Your task to perform on an android device: toggle pop-ups in chrome Image 0: 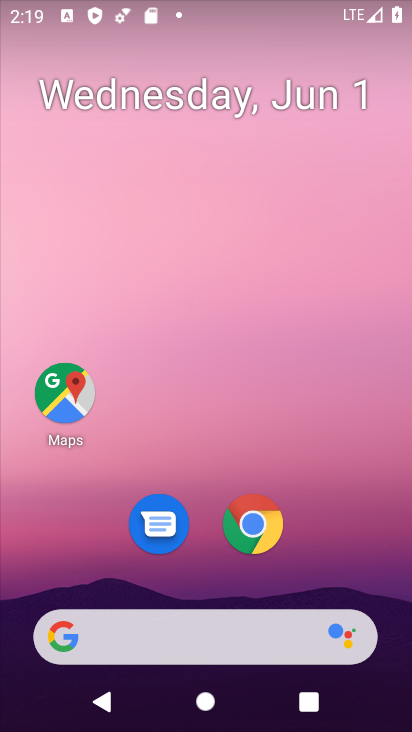
Step 0: click (257, 517)
Your task to perform on an android device: toggle pop-ups in chrome Image 1: 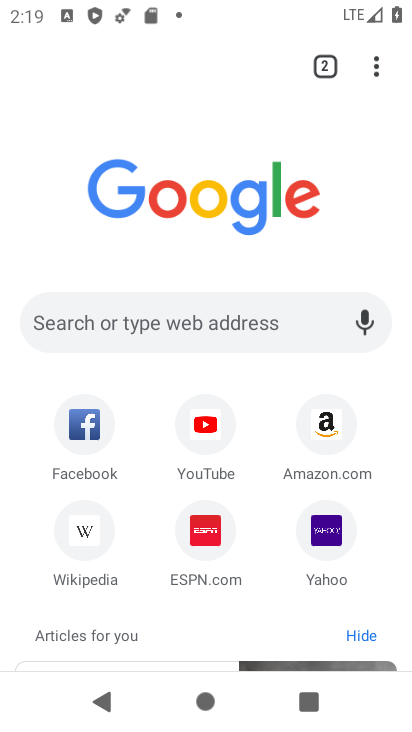
Step 1: click (376, 74)
Your task to perform on an android device: toggle pop-ups in chrome Image 2: 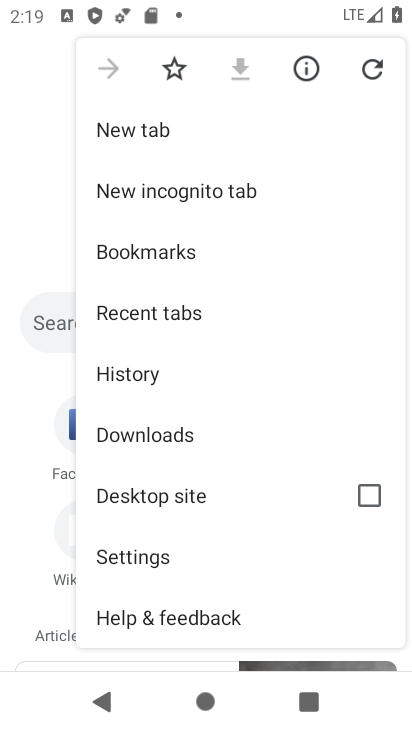
Step 2: click (198, 551)
Your task to perform on an android device: toggle pop-ups in chrome Image 3: 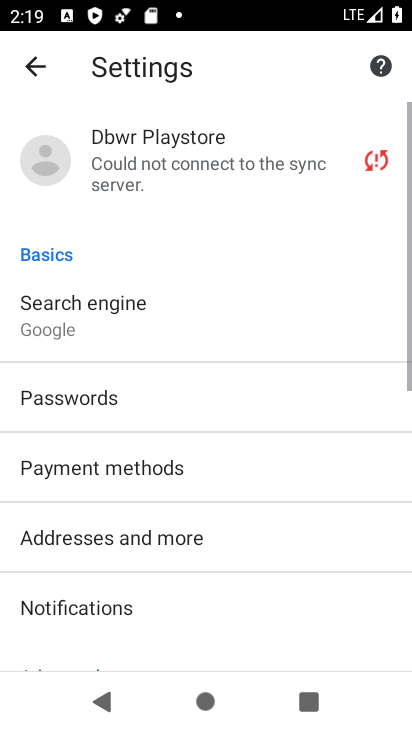
Step 3: drag from (263, 439) to (300, 69)
Your task to perform on an android device: toggle pop-ups in chrome Image 4: 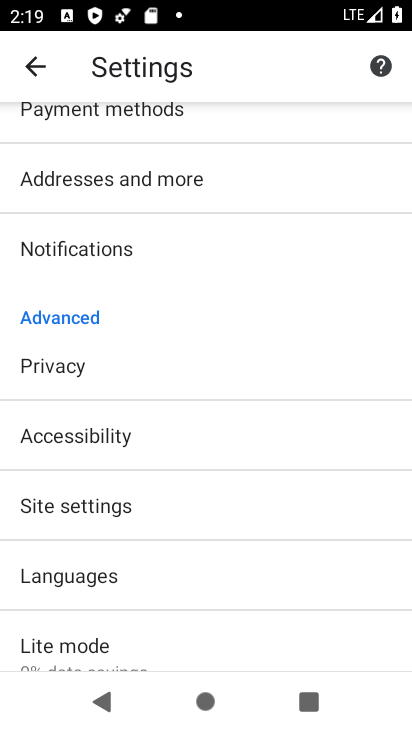
Step 4: click (217, 510)
Your task to perform on an android device: toggle pop-ups in chrome Image 5: 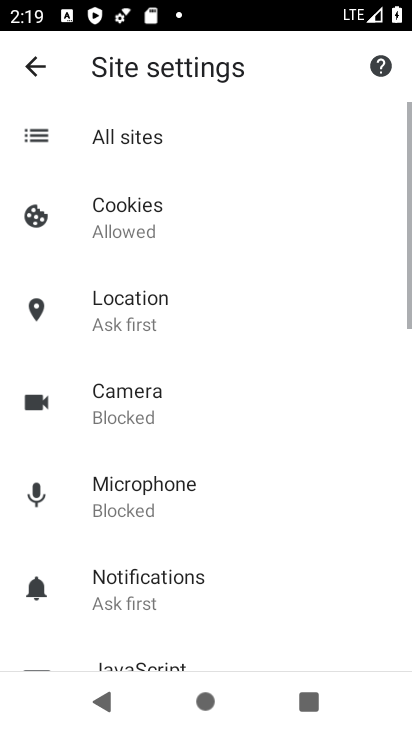
Step 5: drag from (236, 564) to (233, 231)
Your task to perform on an android device: toggle pop-ups in chrome Image 6: 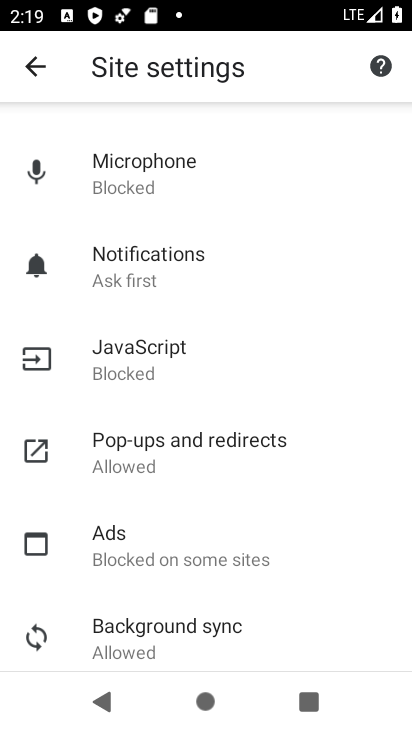
Step 6: click (219, 442)
Your task to perform on an android device: toggle pop-ups in chrome Image 7: 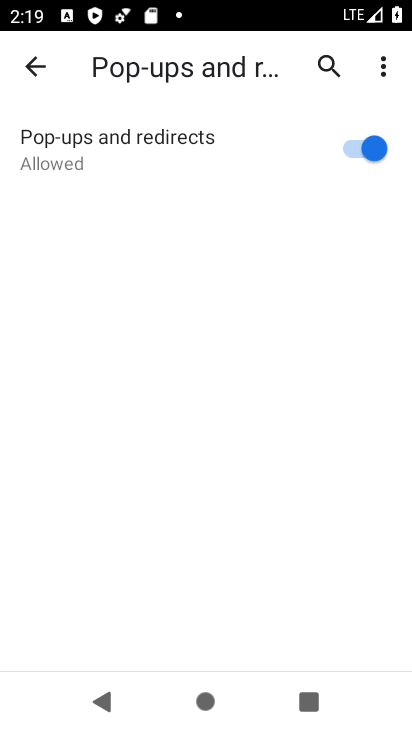
Step 7: click (360, 140)
Your task to perform on an android device: toggle pop-ups in chrome Image 8: 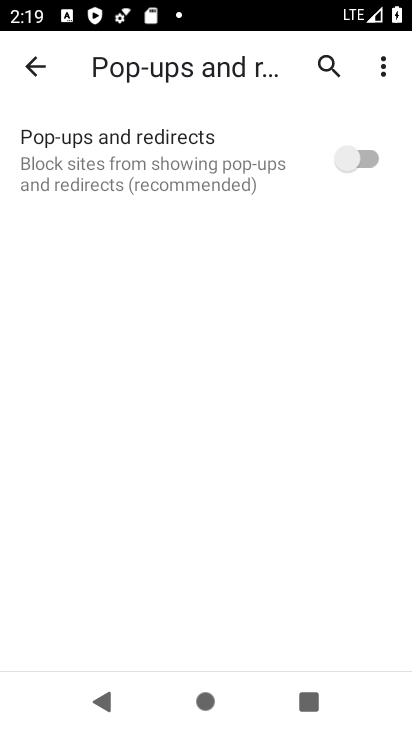
Step 8: task complete